Your task to perform on an android device: Go to Google maps Image 0: 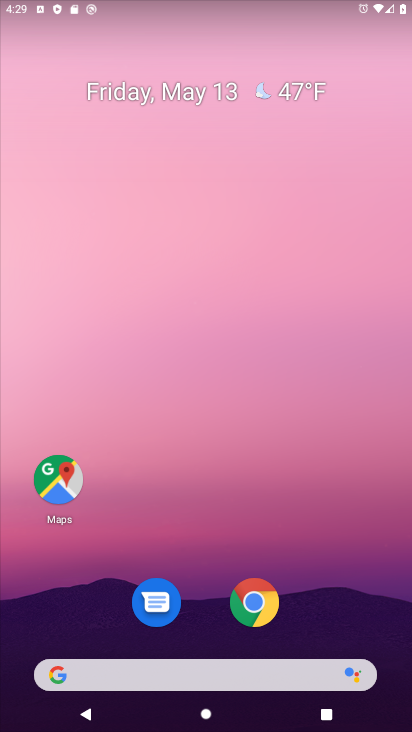
Step 0: click (72, 494)
Your task to perform on an android device: Go to Google maps Image 1: 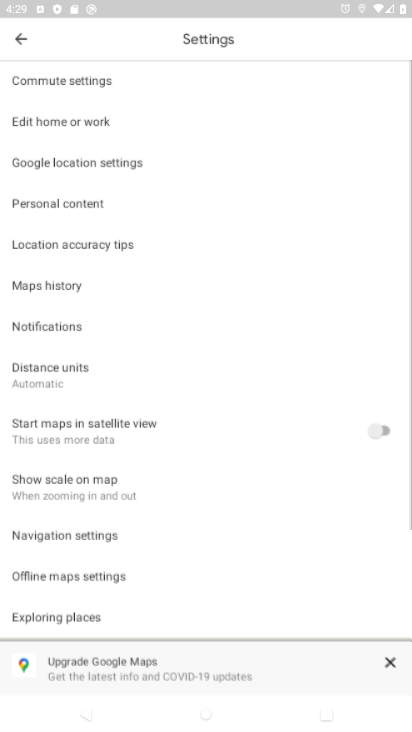
Step 1: click (23, 40)
Your task to perform on an android device: Go to Google maps Image 2: 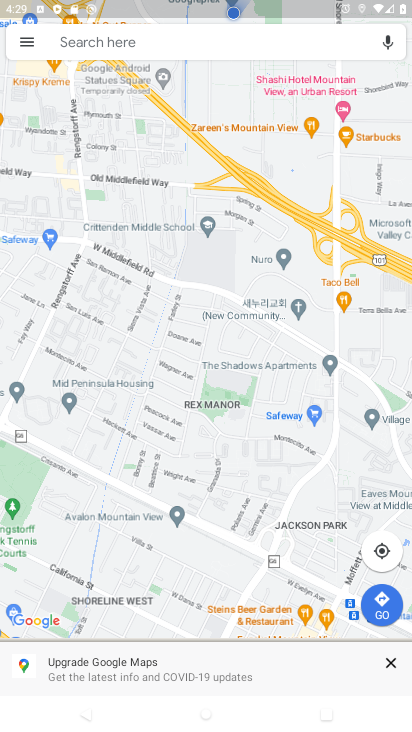
Step 2: task complete